Your task to perform on an android device: Open Android settings Image 0: 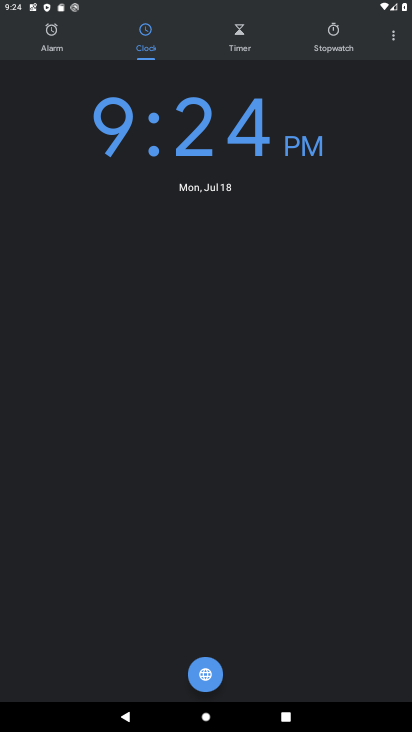
Step 0: press home button
Your task to perform on an android device: Open Android settings Image 1: 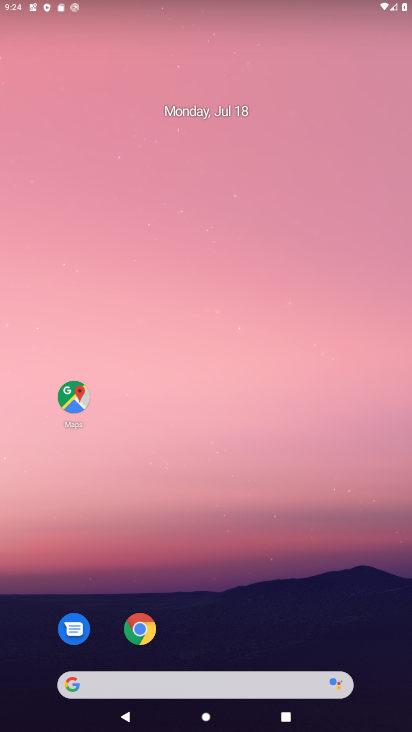
Step 1: drag from (358, 601) to (361, 106)
Your task to perform on an android device: Open Android settings Image 2: 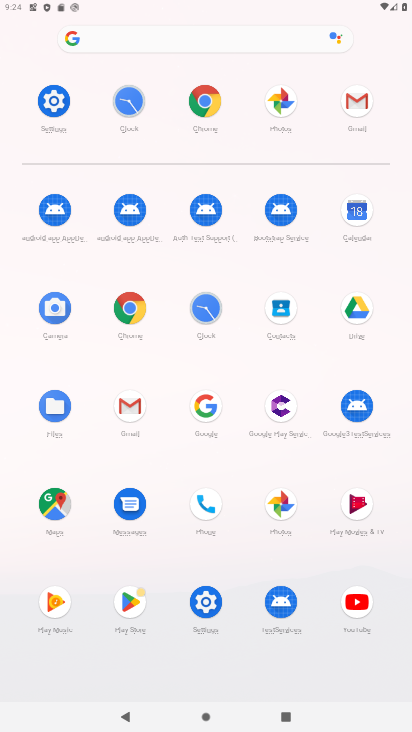
Step 2: click (40, 103)
Your task to perform on an android device: Open Android settings Image 3: 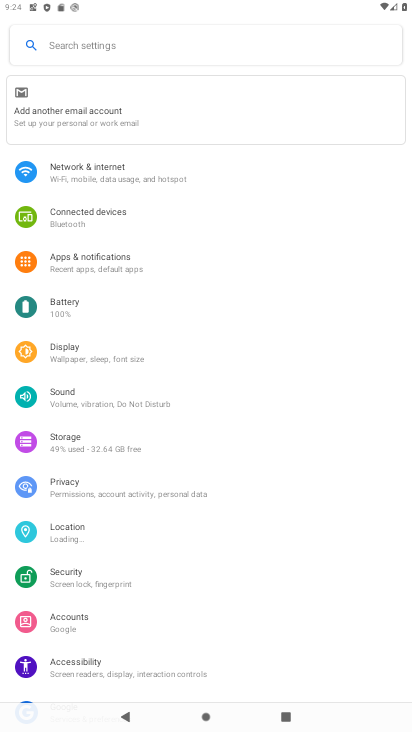
Step 3: task complete